Your task to perform on an android device: turn on data saver in the chrome app Image 0: 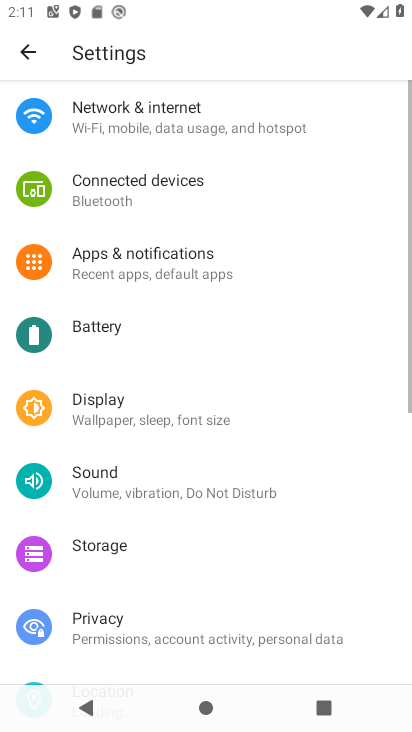
Step 0: drag from (298, 519) to (261, 385)
Your task to perform on an android device: turn on data saver in the chrome app Image 1: 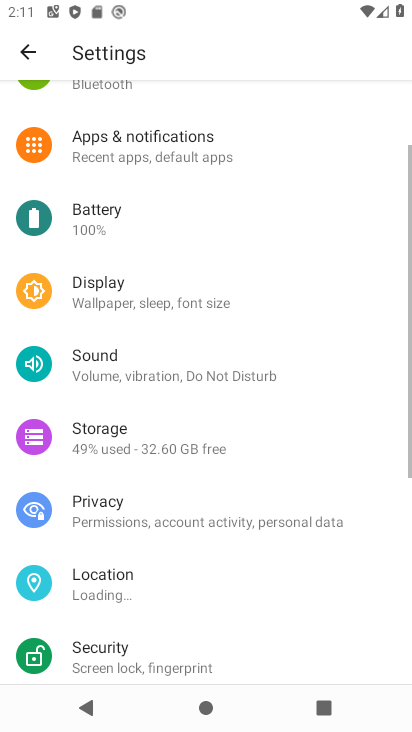
Step 1: press home button
Your task to perform on an android device: turn on data saver in the chrome app Image 2: 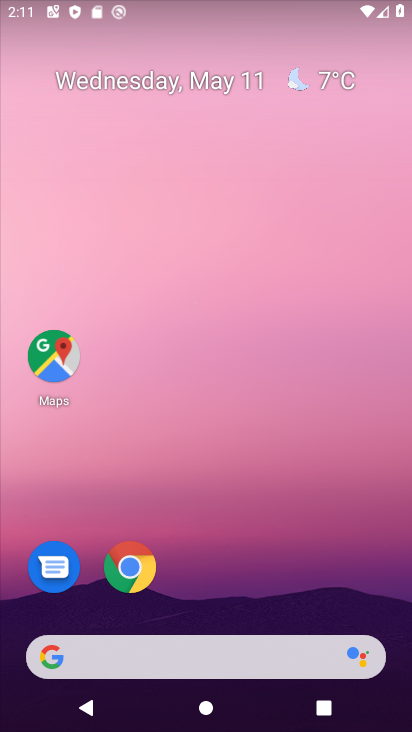
Step 2: drag from (279, 584) to (307, 196)
Your task to perform on an android device: turn on data saver in the chrome app Image 3: 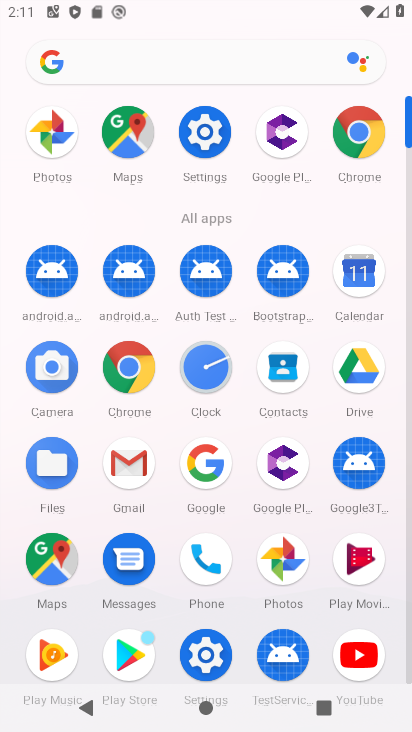
Step 3: click (126, 408)
Your task to perform on an android device: turn on data saver in the chrome app Image 4: 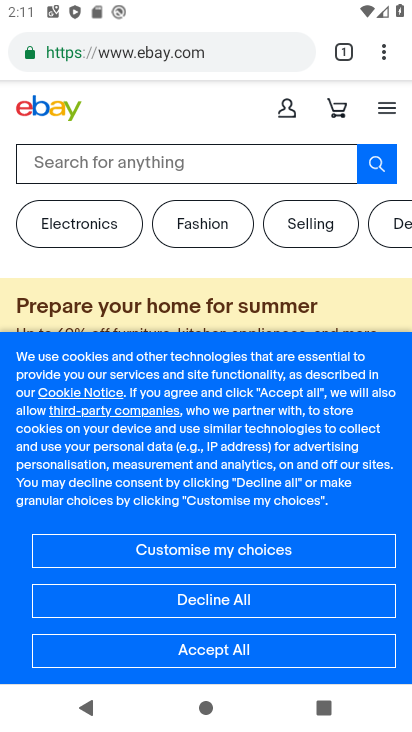
Step 4: click (380, 53)
Your task to perform on an android device: turn on data saver in the chrome app Image 5: 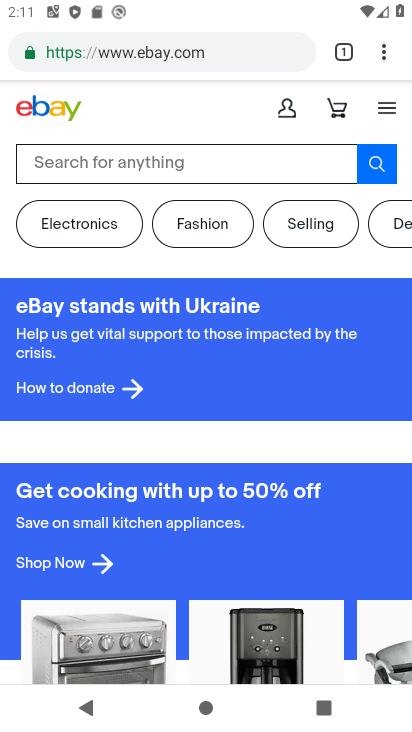
Step 5: click (382, 53)
Your task to perform on an android device: turn on data saver in the chrome app Image 6: 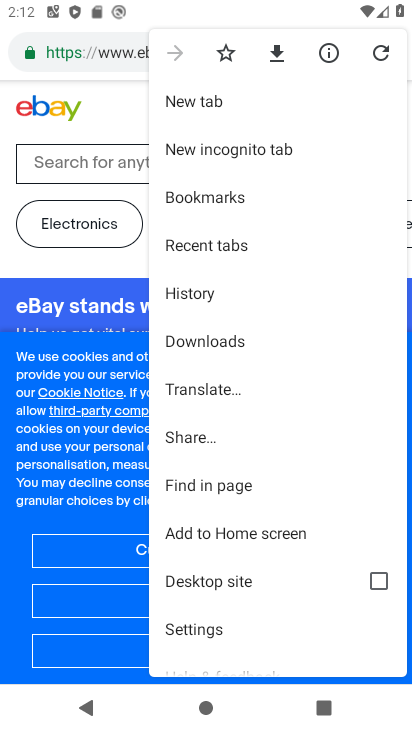
Step 6: click (194, 630)
Your task to perform on an android device: turn on data saver in the chrome app Image 7: 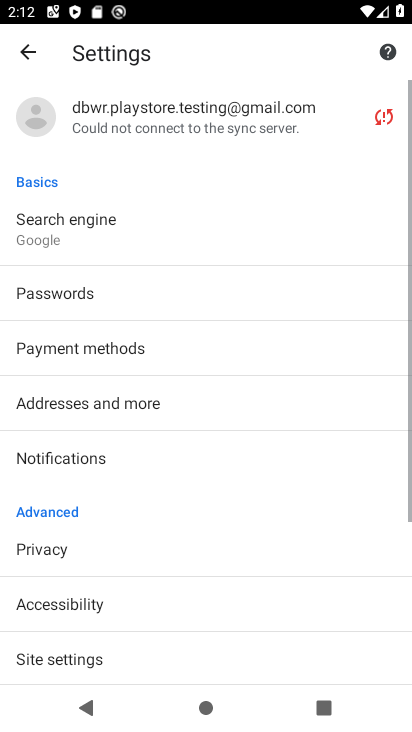
Step 7: drag from (216, 622) to (217, 343)
Your task to perform on an android device: turn on data saver in the chrome app Image 8: 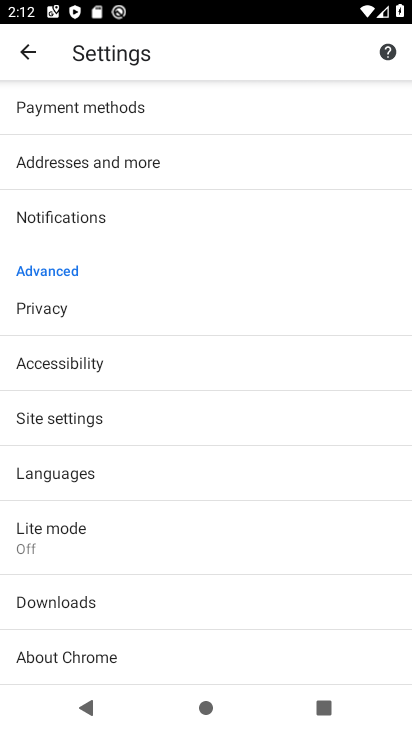
Step 8: click (86, 525)
Your task to perform on an android device: turn on data saver in the chrome app Image 9: 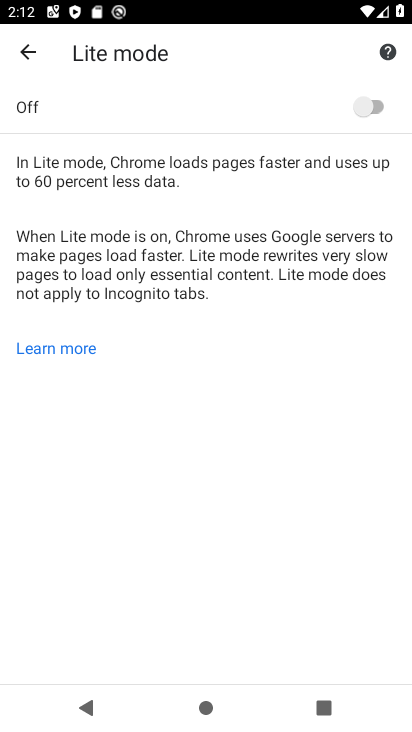
Step 9: click (375, 99)
Your task to perform on an android device: turn on data saver in the chrome app Image 10: 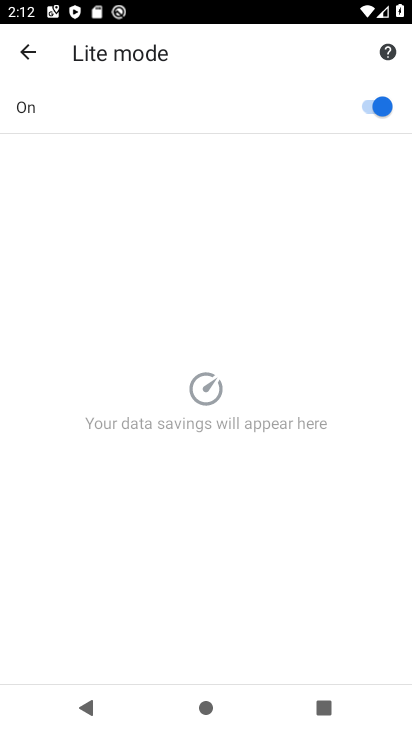
Step 10: task complete